Your task to perform on an android device: find snoozed emails in the gmail app Image 0: 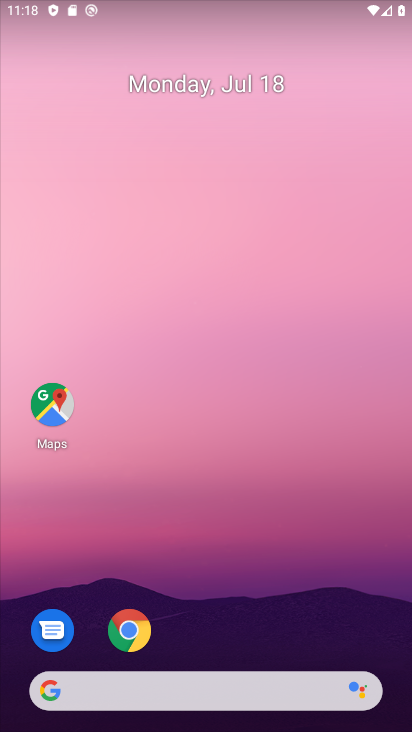
Step 0: drag from (220, 567) to (207, 7)
Your task to perform on an android device: find snoozed emails in the gmail app Image 1: 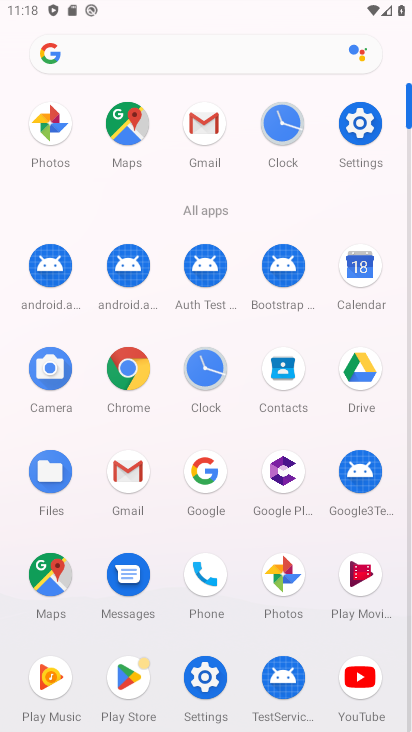
Step 1: click (134, 486)
Your task to perform on an android device: find snoozed emails in the gmail app Image 2: 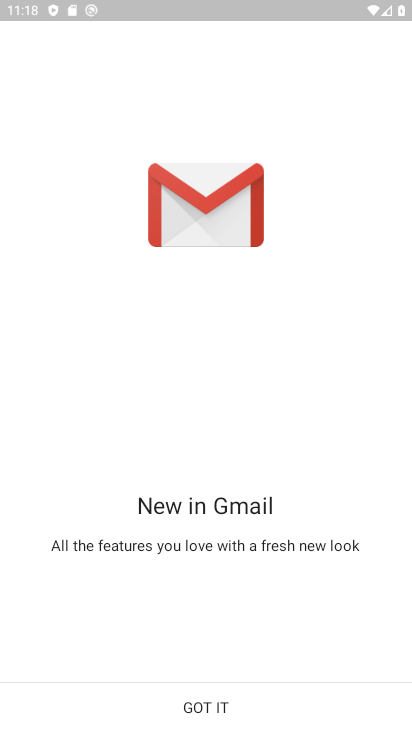
Step 2: click (204, 704)
Your task to perform on an android device: find snoozed emails in the gmail app Image 3: 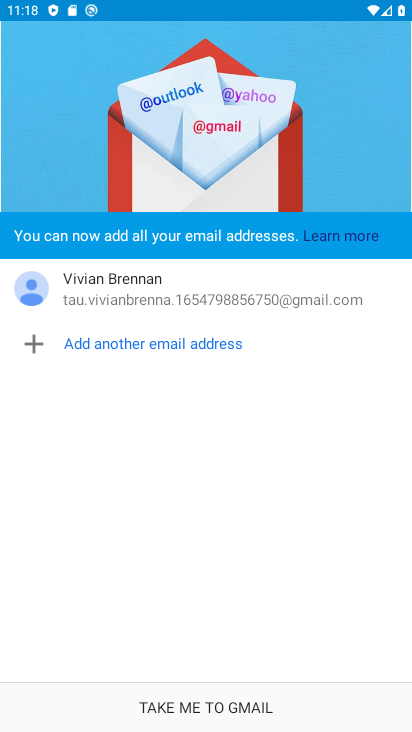
Step 3: click (227, 704)
Your task to perform on an android device: find snoozed emails in the gmail app Image 4: 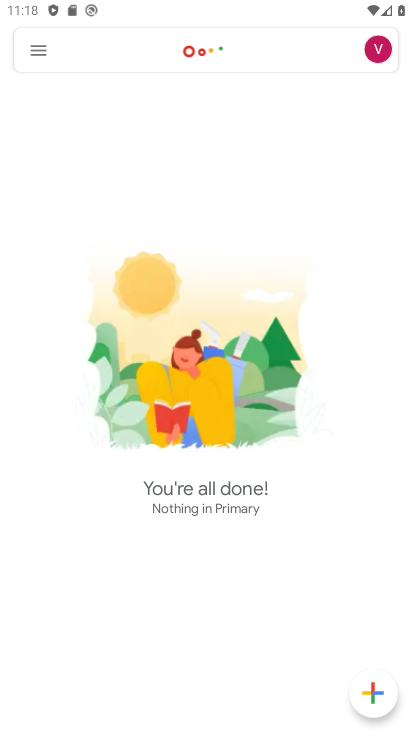
Step 4: click (33, 45)
Your task to perform on an android device: find snoozed emails in the gmail app Image 5: 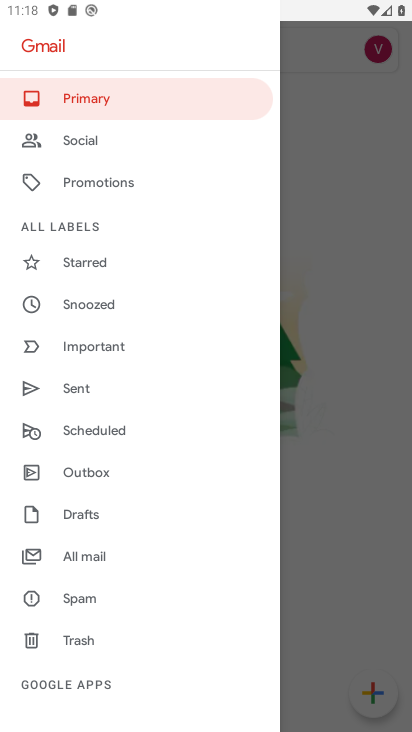
Step 5: click (105, 303)
Your task to perform on an android device: find snoozed emails in the gmail app Image 6: 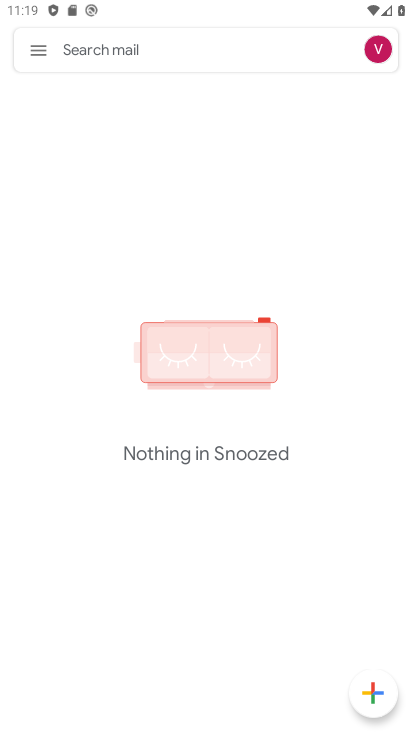
Step 6: task complete